Your task to perform on an android device: stop showing notifications on the lock screen Image 0: 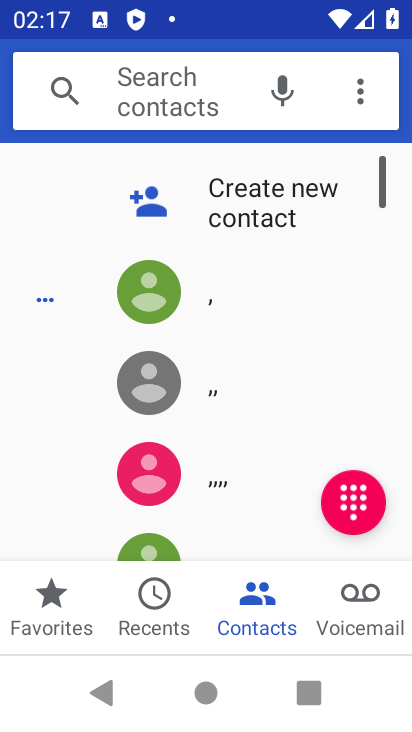
Step 0: press home button
Your task to perform on an android device: stop showing notifications on the lock screen Image 1: 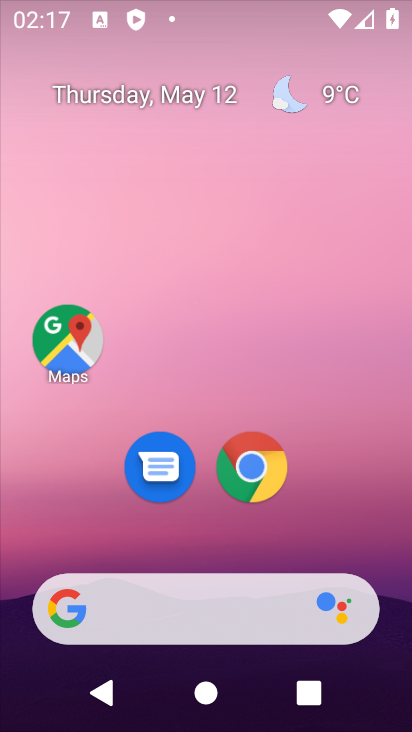
Step 1: drag from (324, 543) to (343, 275)
Your task to perform on an android device: stop showing notifications on the lock screen Image 2: 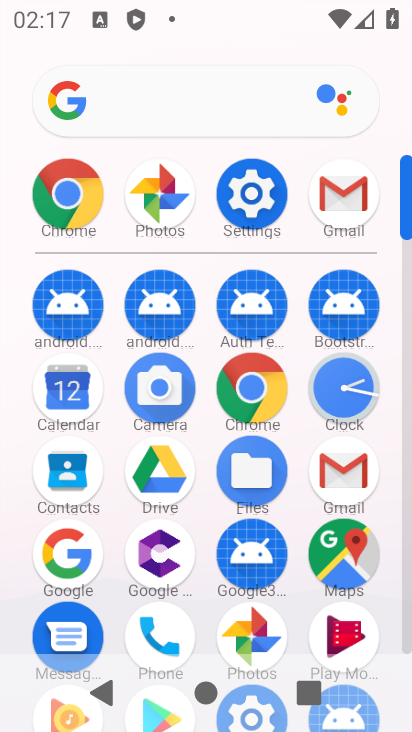
Step 2: click (251, 169)
Your task to perform on an android device: stop showing notifications on the lock screen Image 3: 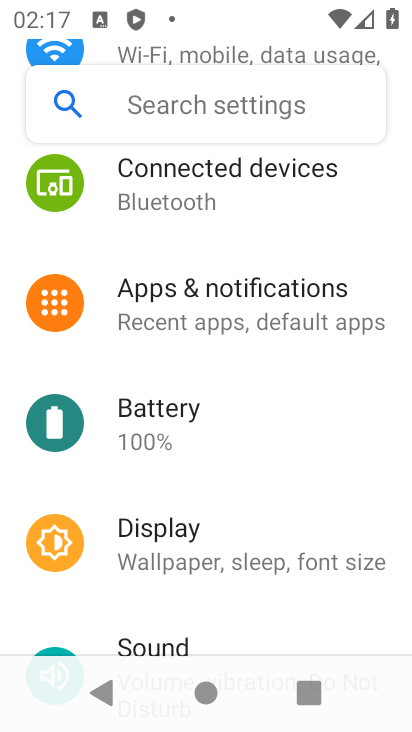
Step 3: click (213, 314)
Your task to perform on an android device: stop showing notifications on the lock screen Image 4: 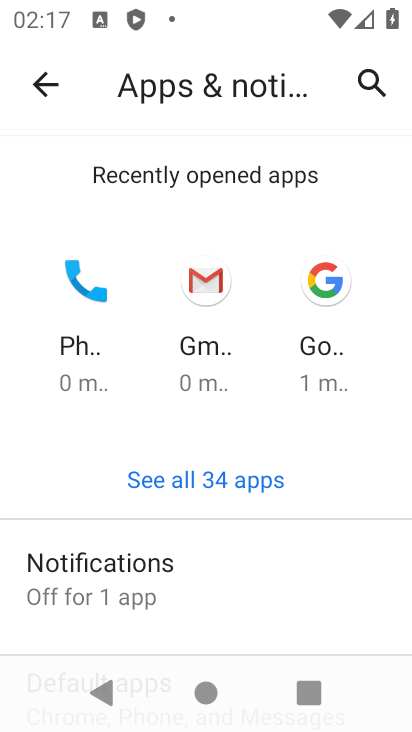
Step 4: click (107, 566)
Your task to perform on an android device: stop showing notifications on the lock screen Image 5: 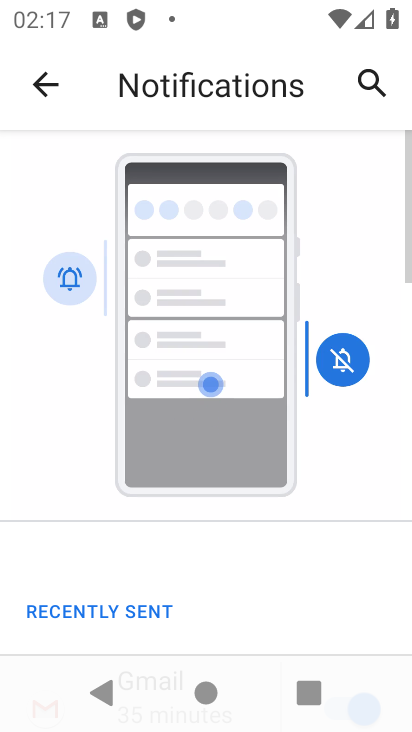
Step 5: drag from (250, 558) to (290, 167)
Your task to perform on an android device: stop showing notifications on the lock screen Image 6: 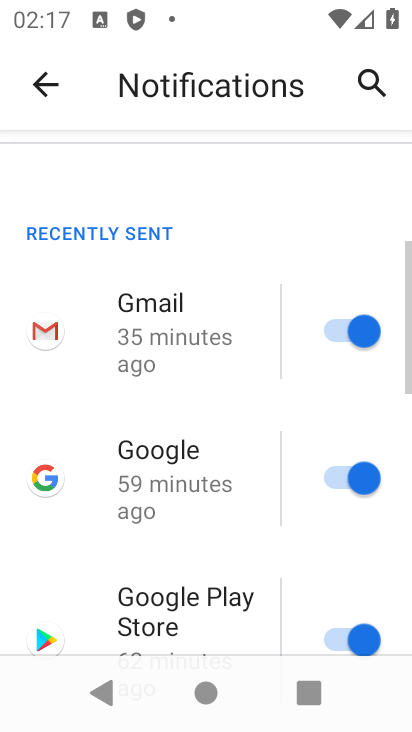
Step 6: drag from (250, 568) to (270, 162)
Your task to perform on an android device: stop showing notifications on the lock screen Image 7: 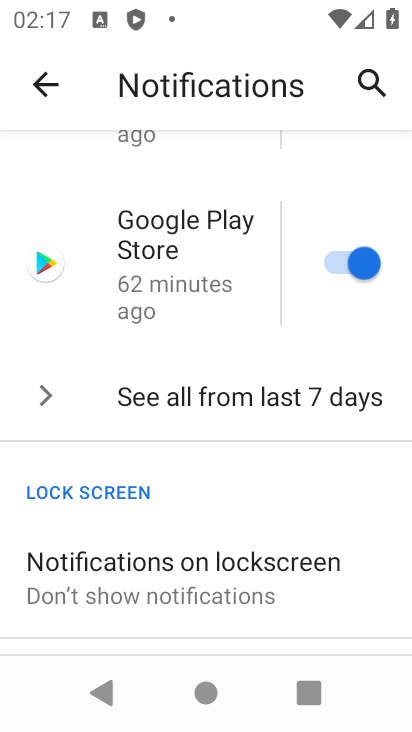
Step 7: click (144, 583)
Your task to perform on an android device: stop showing notifications on the lock screen Image 8: 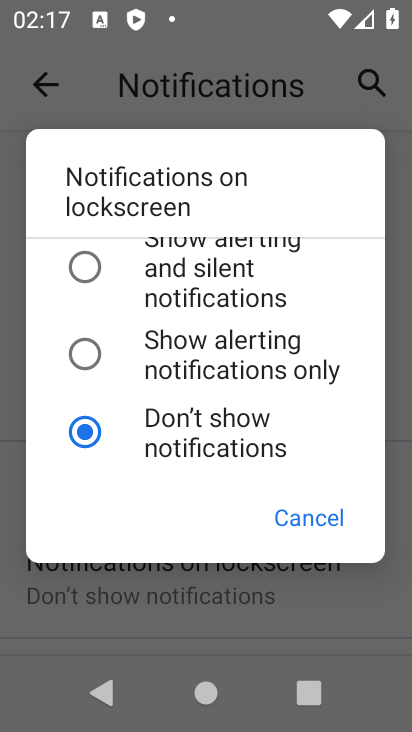
Step 8: task complete